Your task to perform on an android device: turn notification dots off Image 0: 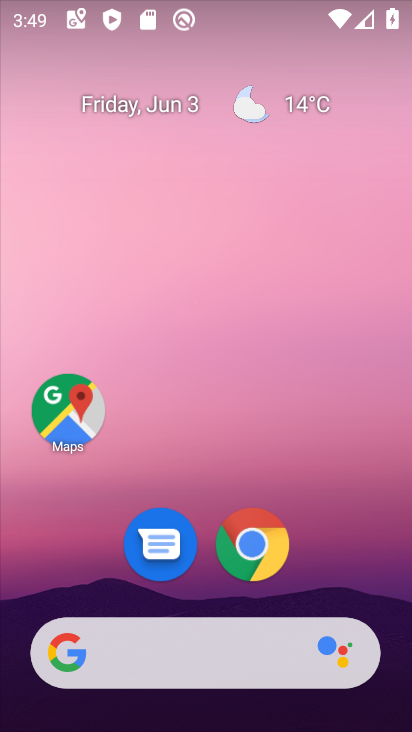
Step 0: drag from (396, 614) to (337, 120)
Your task to perform on an android device: turn notification dots off Image 1: 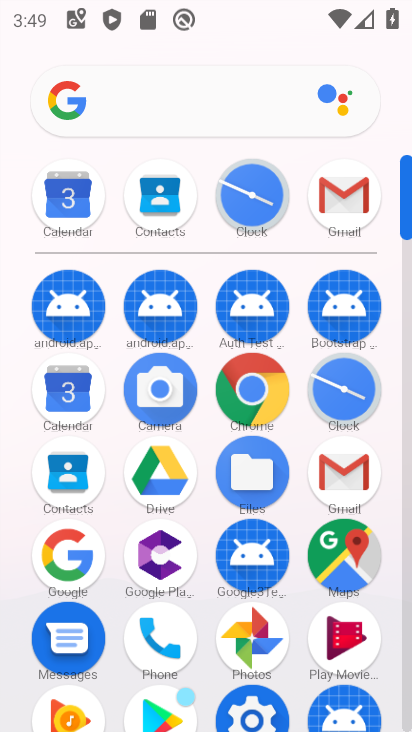
Step 1: click (406, 703)
Your task to perform on an android device: turn notification dots off Image 2: 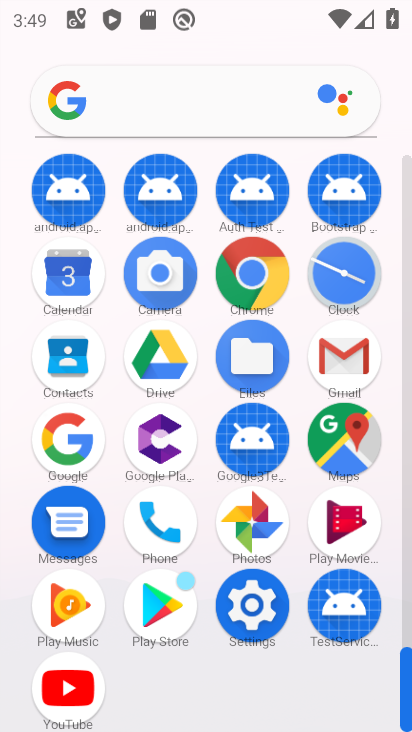
Step 2: click (249, 606)
Your task to perform on an android device: turn notification dots off Image 3: 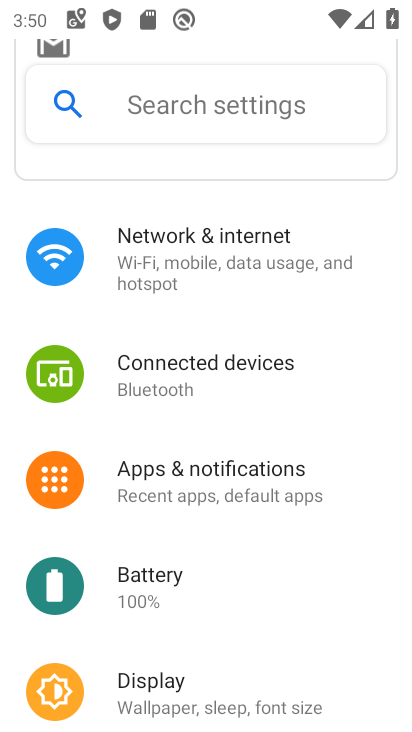
Step 3: click (210, 470)
Your task to perform on an android device: turn notification dots off Image 4: 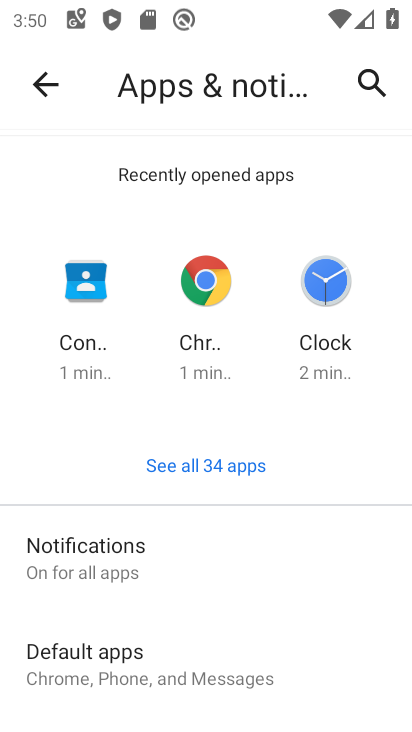
Step 4: click (79, 553)
Your task to perform on an android device: turn notification dots off Image 5: 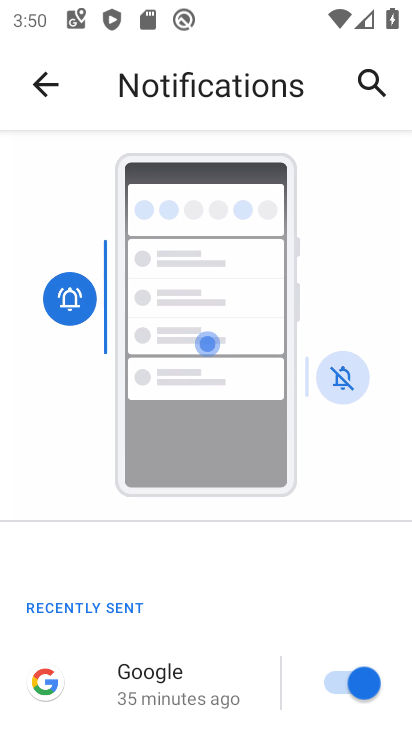
Step 5: drag from (254, 699) to (239, 317)
Your task to perform on an android device: turn notification dots off Image 6: 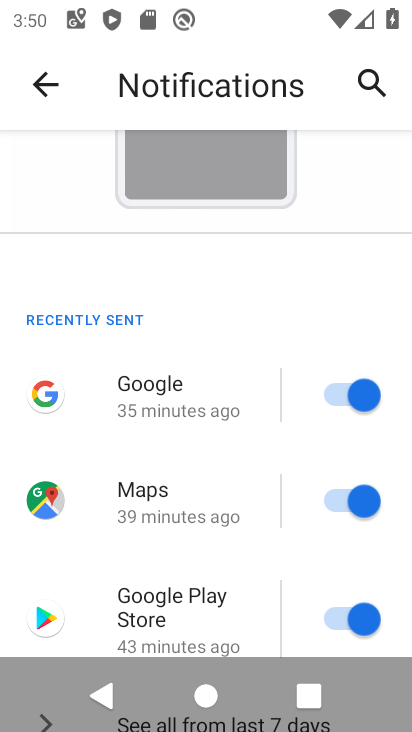
Step 6: drag from (272, 640) to (208, 168)
Your task to perform on an android device: turn notification dots off Image 7: 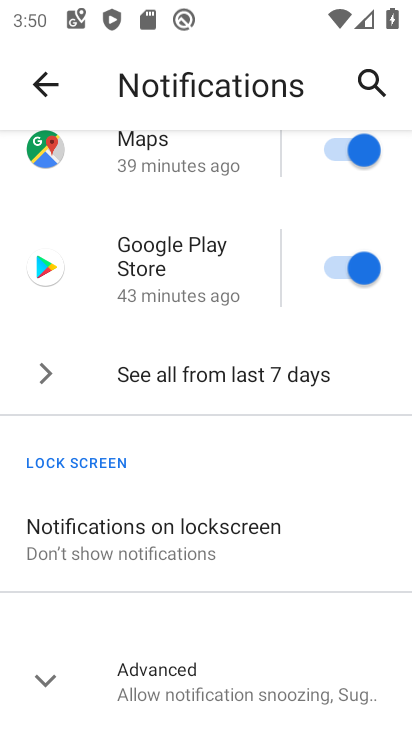
Step 7: click (54, 685)
Your task to perform on an android device: turn notification dots off Image 8: 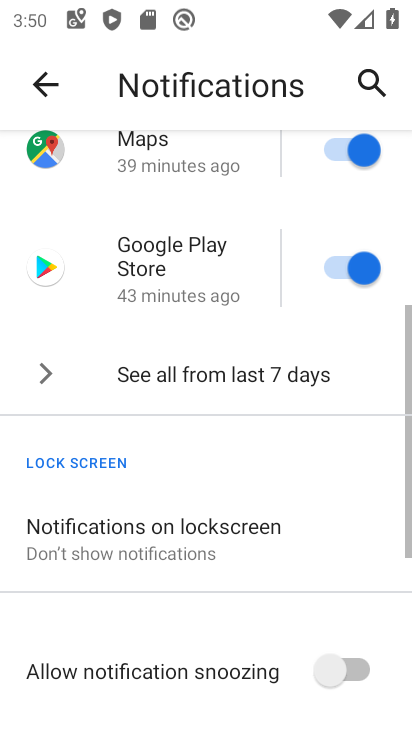
Step 8: drag from (253, 659) to (239, 190)
Your task to perform on an android device: turn notification dots off Image 9: 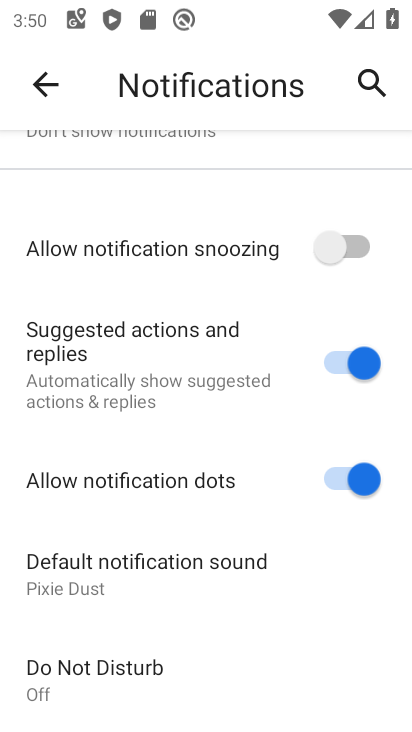
Step 9: click (332, 477)
Your task to perform on an android device: turn notification dots off Image 10: 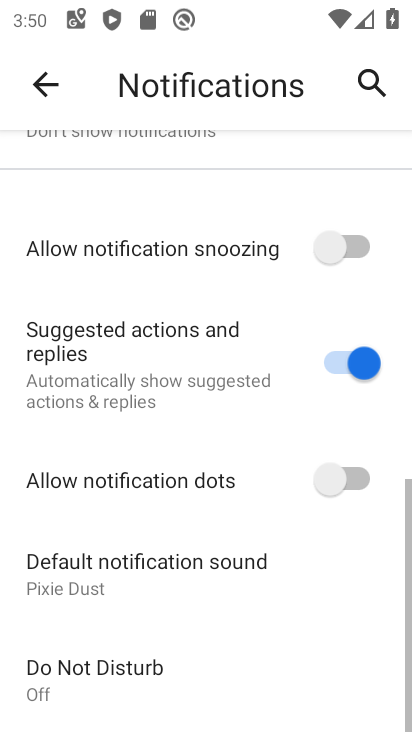
Step 10: task complete